Your task to perform on an android device: Go to Wikipedia Image 0: 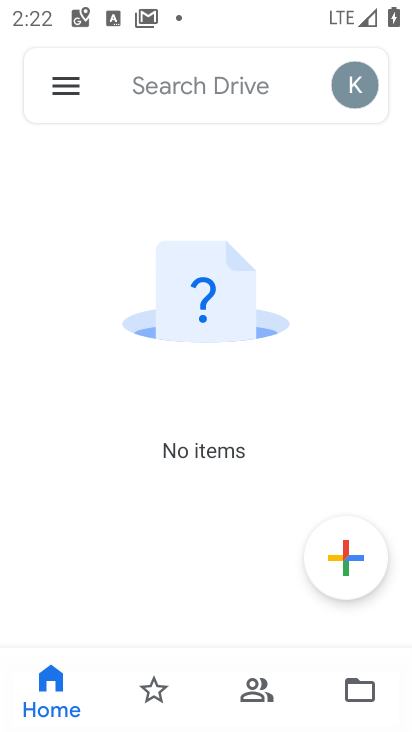
Step 0: press home button
Your task to perform on an android device: Go to Wikipedia Image 1: 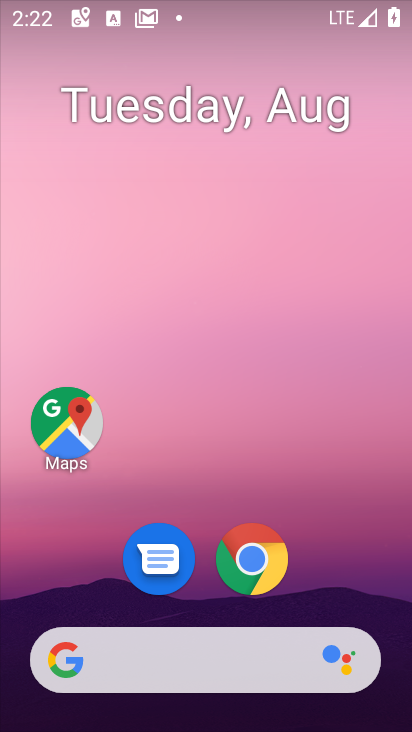
Step 1: click (236, 544)
Your task to perform on an android device: Go to Wikipedia Image 2: 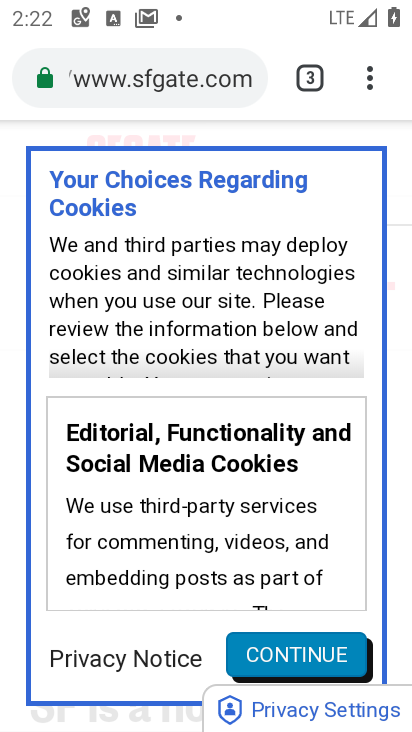
Step 2: click (317, 89)
Your task to perform on an android device: Go to Wikipedia Image 3: 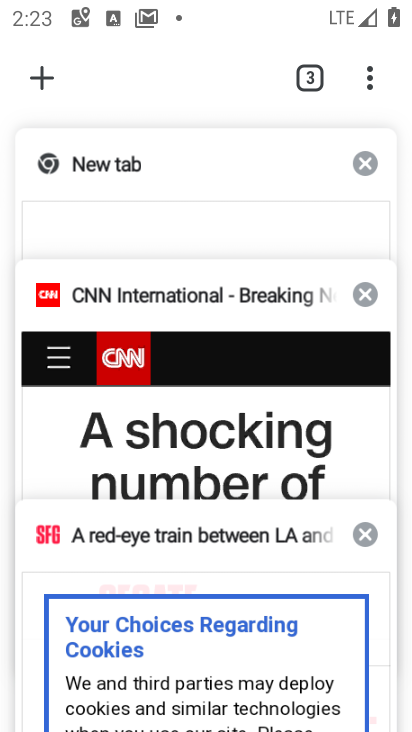
Step 3: click (23, 80)
Your task to perform on an android device: Go to Wikipedia Image 4: 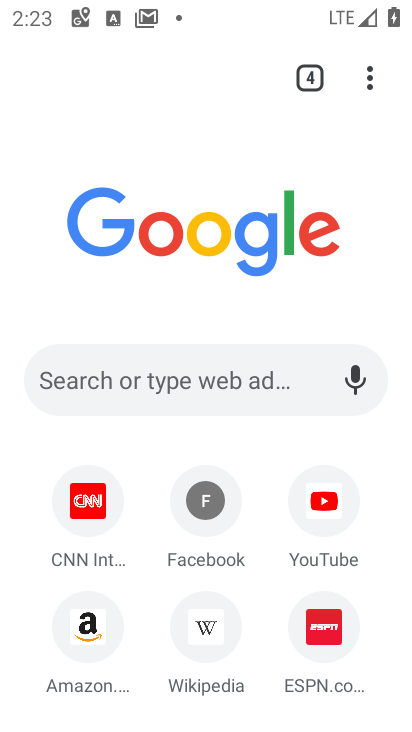
Step 4: click (205, 642)
Your task to perform on an android device: Go to Wikipedia Image 5: 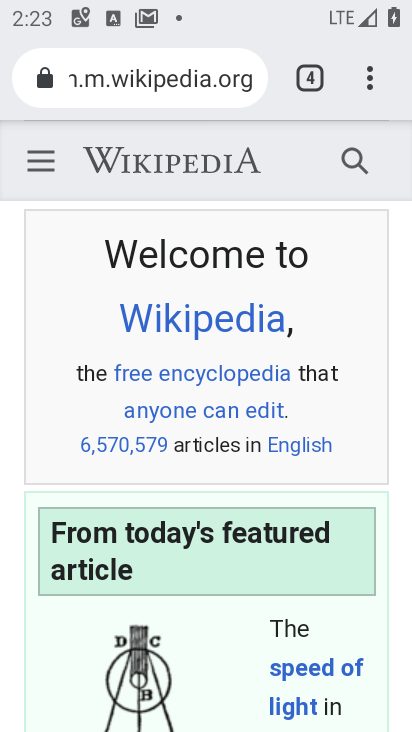
Step 5: task complete